Your task to perform on an android device: see sites visited before in the chrome app Image 0: 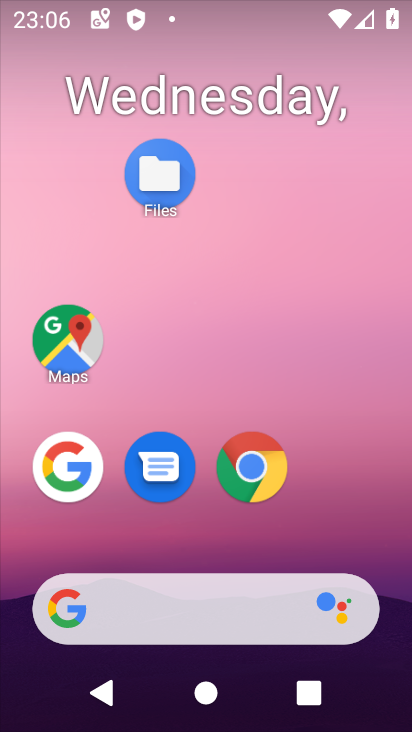
Step 0: click (277, 456)
Your task to perform on an android device: see sites visited before in the chrome app Image 1: 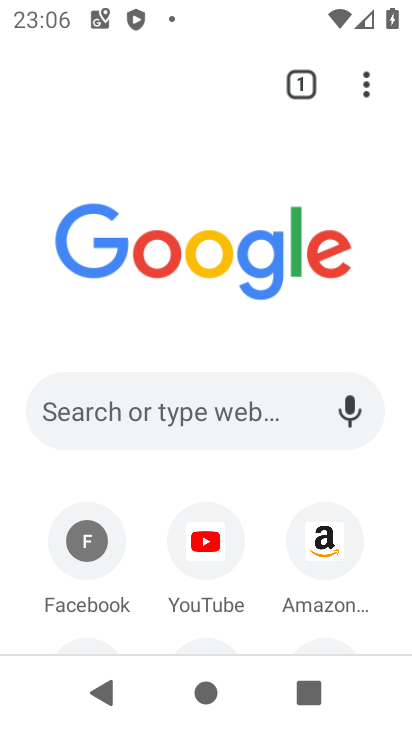
Step 1: click (361, 78)
Your task to perform on an android device: see sites visited before in the chrome app Image 2: 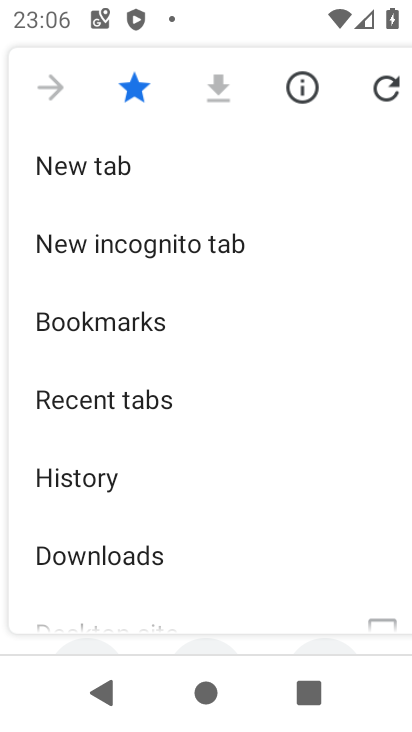
Step 2: click (78, 457)
Your task to perform on an android device: see sites visited before in the chrome app Image 3: 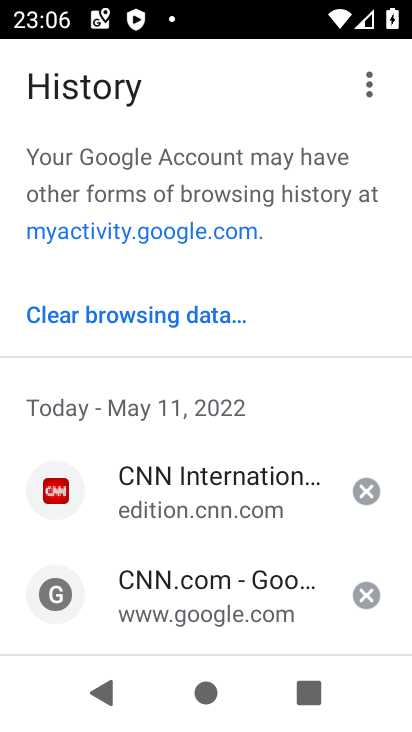
Step 3: task complete